Your task to perform on an android device: Open maps Image 0: 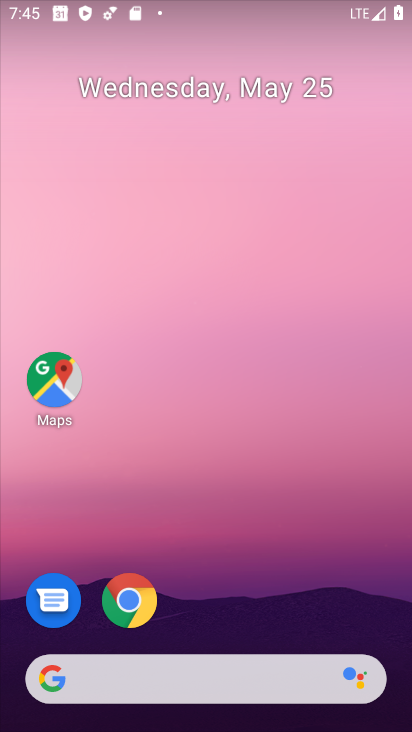
Step 0: click (57, 362)
Your task to perform on an android device: Open maps Image 1: 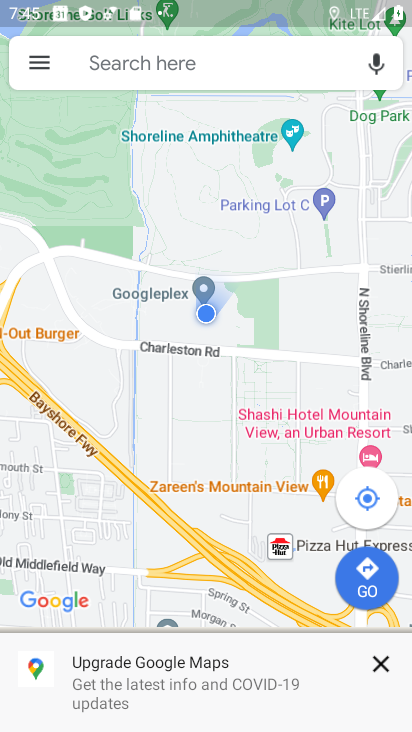
Step 1: task complete